Your task to perform on an android device: Open notification settings Image 0: 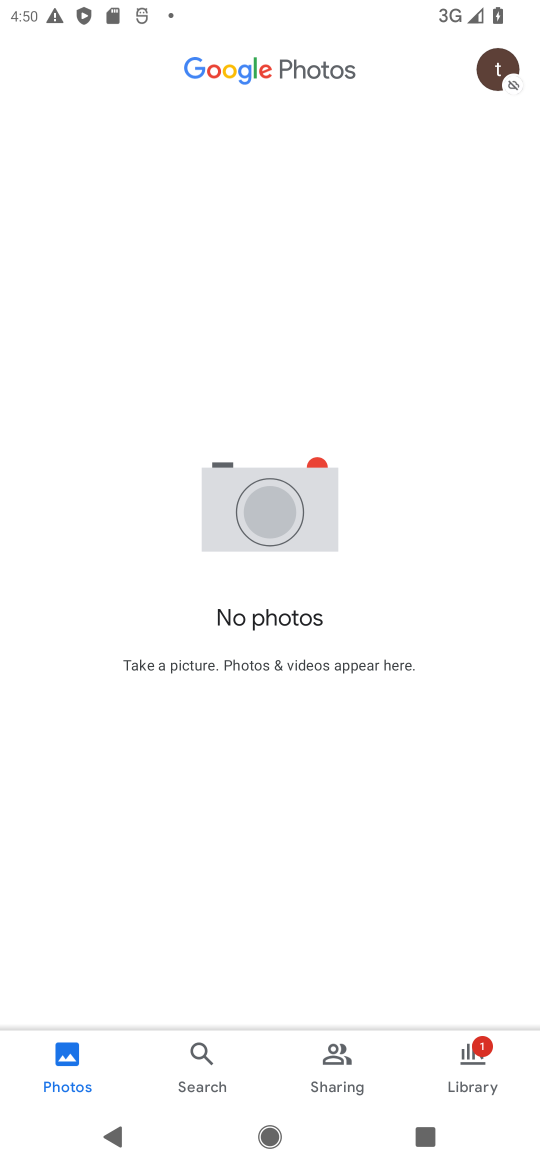
Step 0: press home button
Your task to perform on an android device: Open notification settings Image 1: 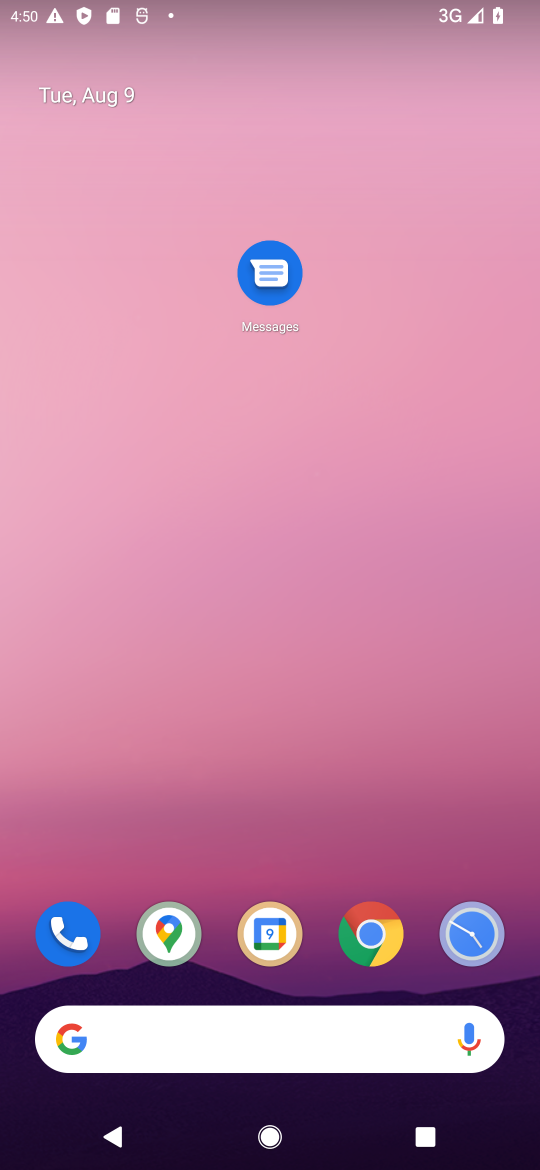
Step 1: drag from (317, 986) to (419, 196)
Your task to perform on an android device: Open notification settings Image 2: 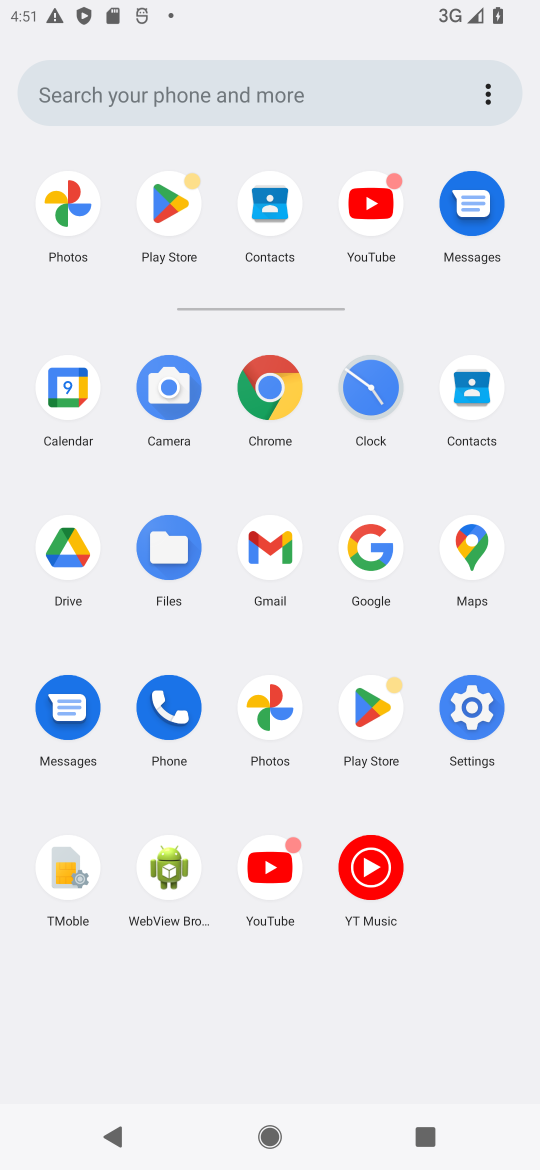
Step 2: click (475, 716)
Your task to perform on an android device: Open notification settings Image 3: 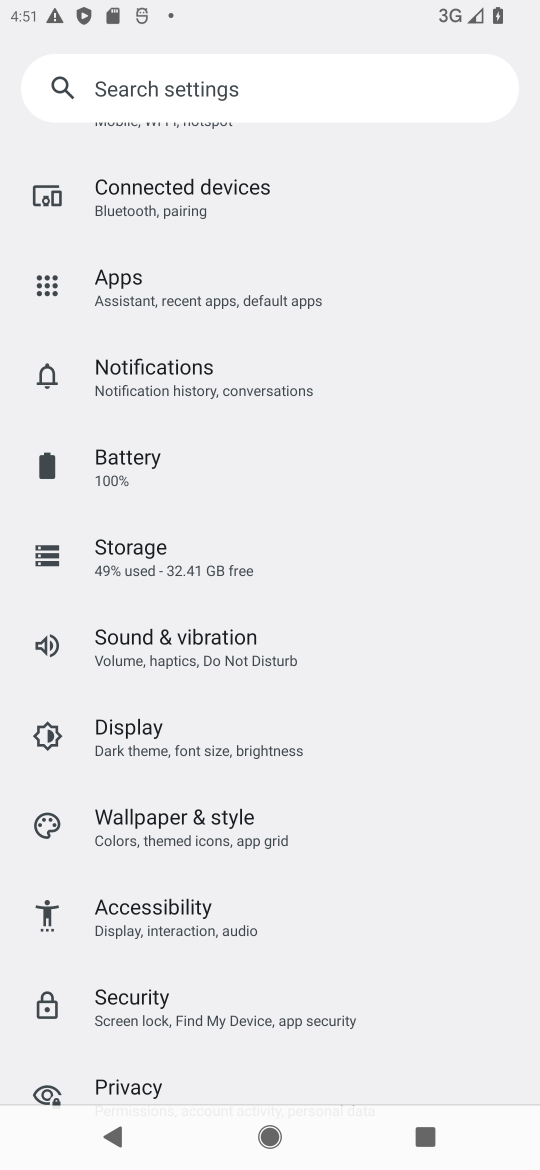
Step 3: task complete